Your task to perform on an android device: Go to notification settings Image 0: 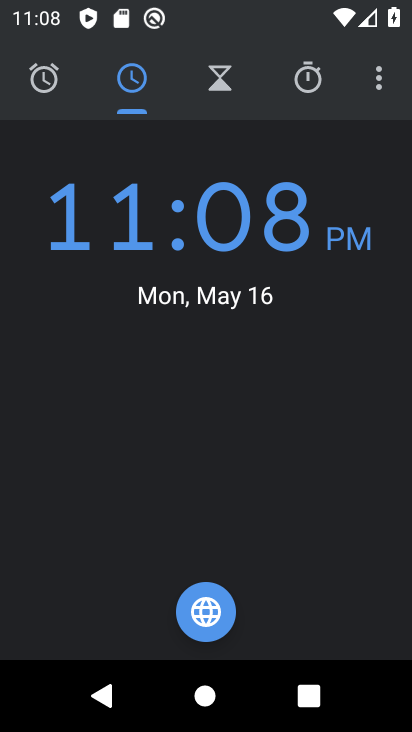
Step 0: press home button
Your task to perform on an android device: Go to notification settings Image 1: 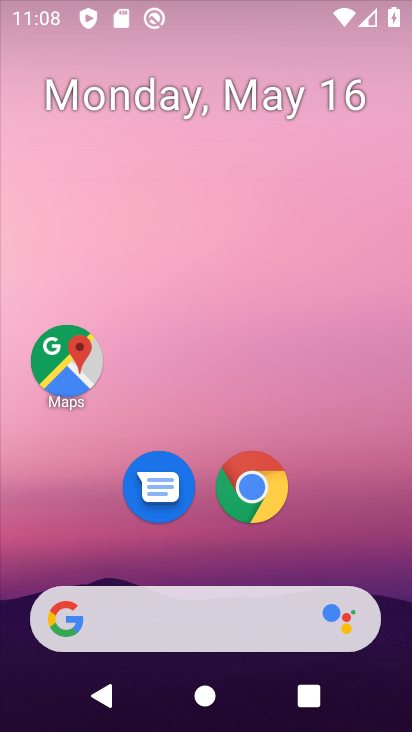
Step 1: drag from (153, 325) to (241, 141)
Your task to perform on an android device: Go to notification settings Image 2: 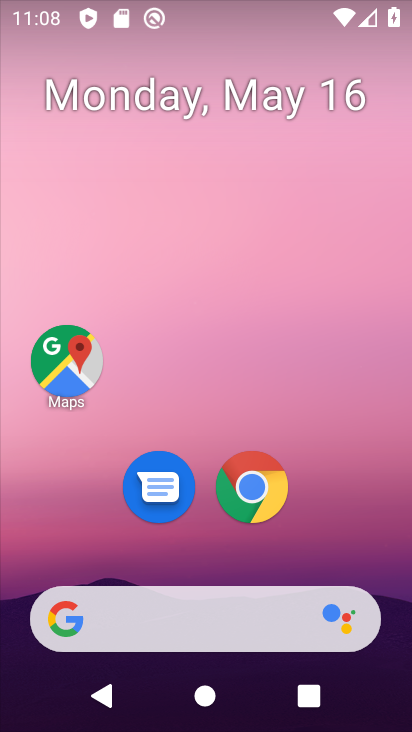
Step 2: drag from (22, 724) to (286, 221)
Your task to perform on an android device: Go to notification settings Image 3: 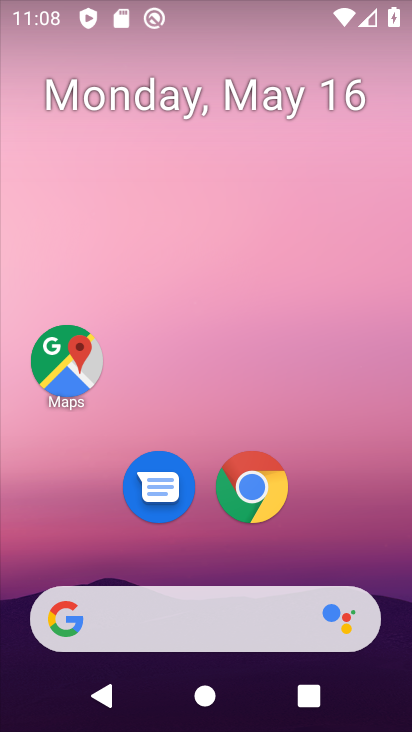
Step 3: drag from (11, 577) to (267, 67)
Your task to perform on an android device: Go to notification settings Image 4: 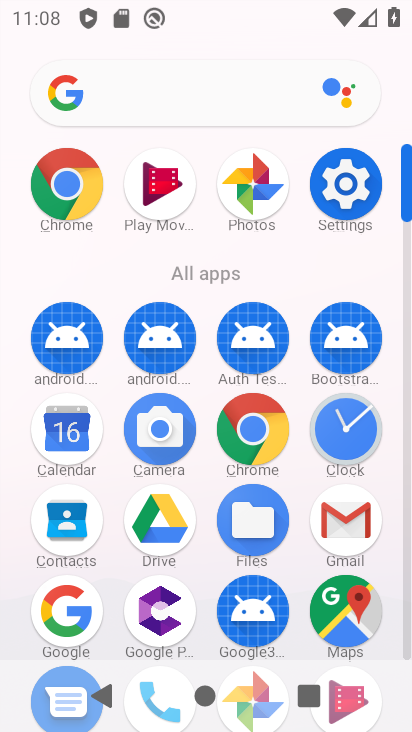
Step 4: click (334, 181)
Your task to perform on an android device: Go to notification settings Image 5: 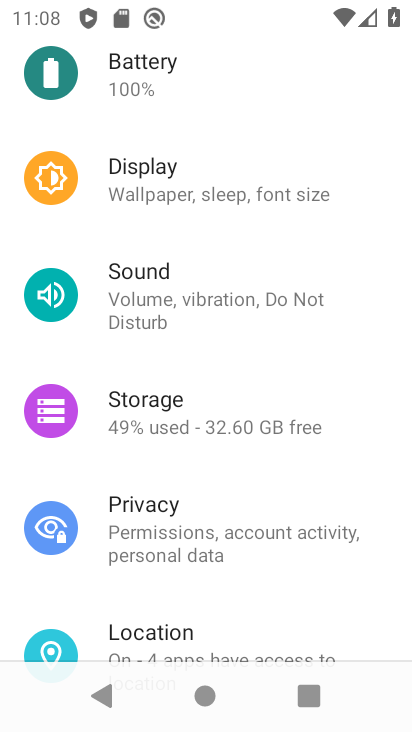
Step 5: drag from (161, 214) to (166, 616)
Your task to perform on an android device: Go to notification settings Image 6: 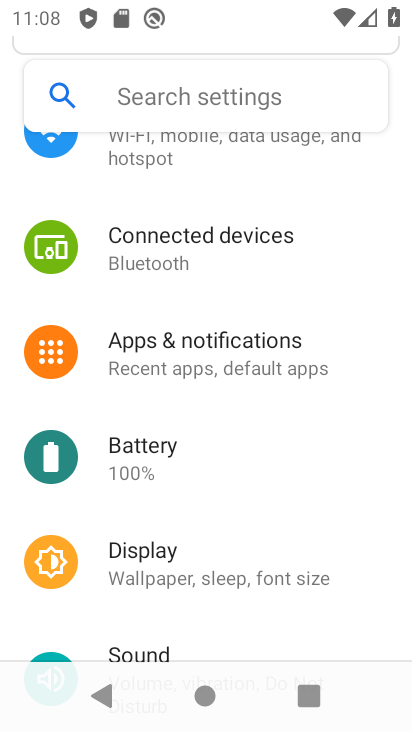
Step 6: click (176, 342)
Your task to perform on an android device: Go to notification settings Image 7: 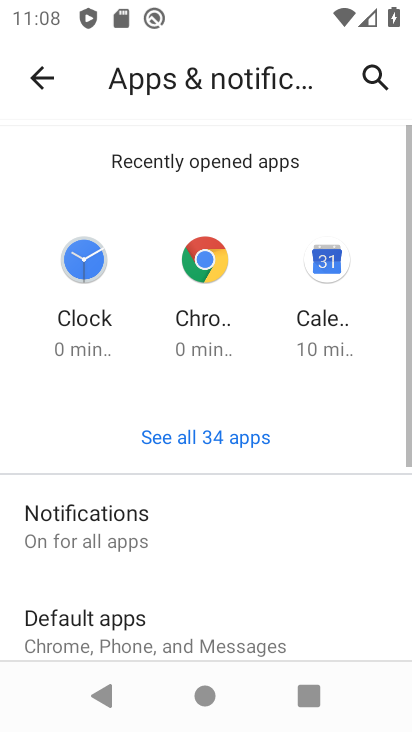
Step 7: click (117, 519)
Your task to perform on an android device: Go to notification settings Image 8: 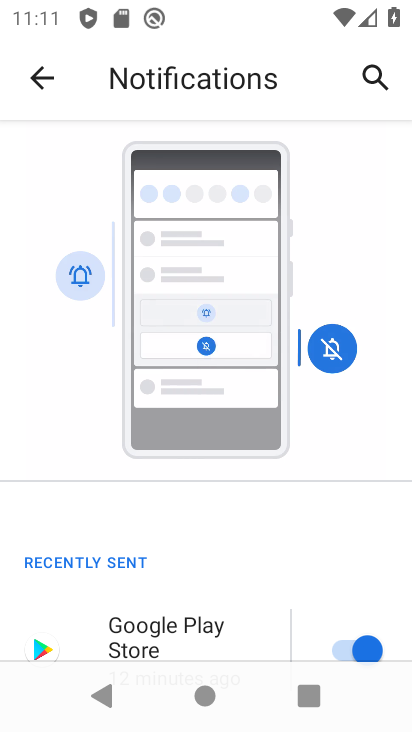
Step 8: task complete